Your task to perform on an android device: Open Wikipedia Image 0: 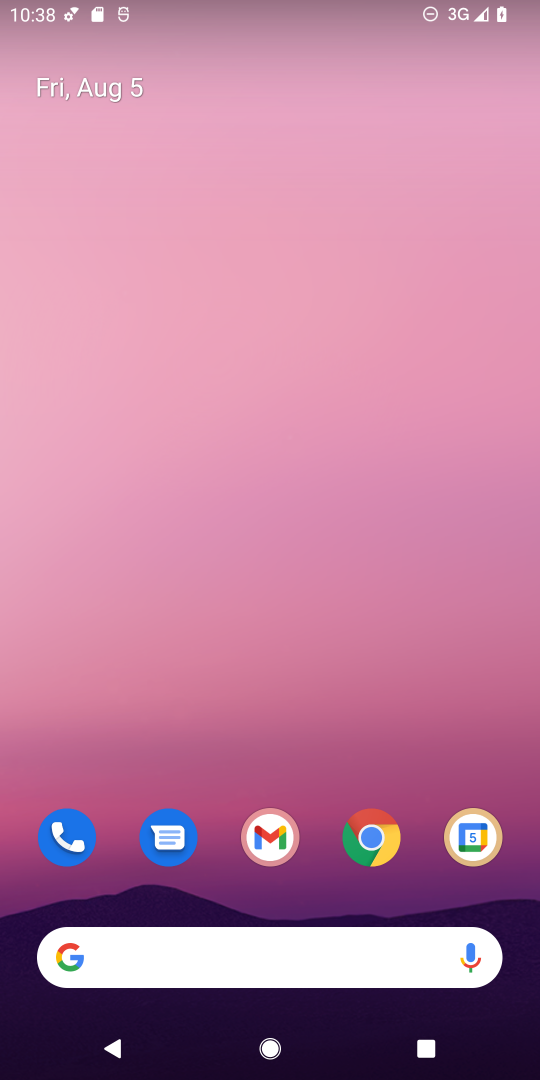
Step 0: click (376, 841)
Your task to perform on an android device: Open Wikipedia Image 1: 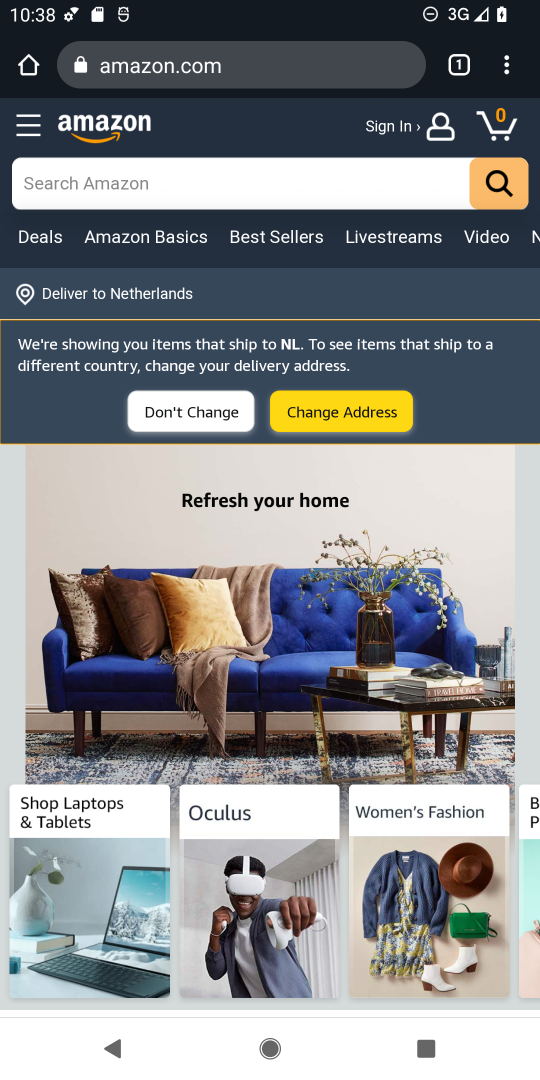
Step 1: click (505, 67)
Your task to perform on an android device: Open Wikipedia Image 2: 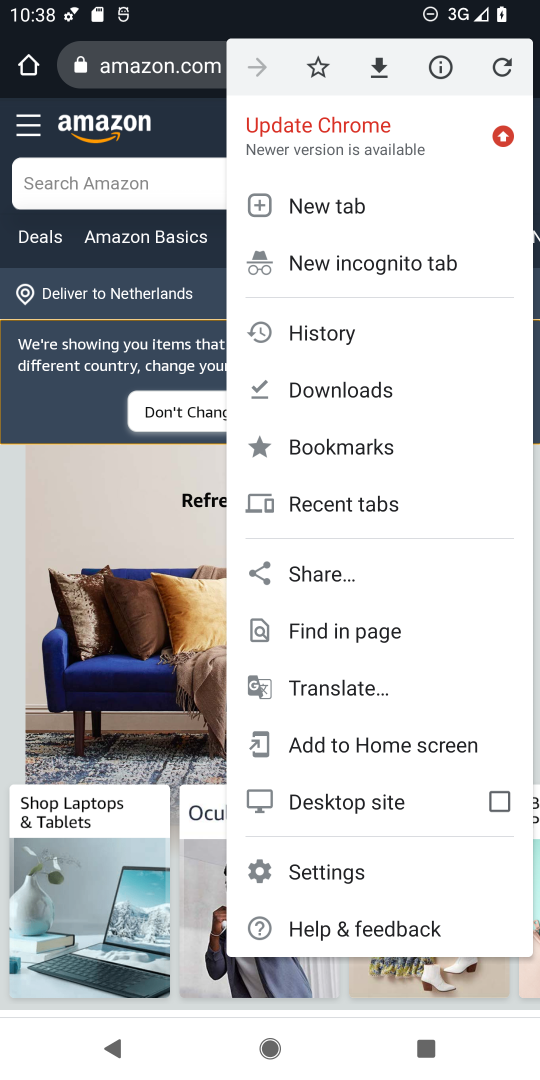
Step 2: click (350, 193)
Your task to perform on an android device: Open Wikipedia Image 3: 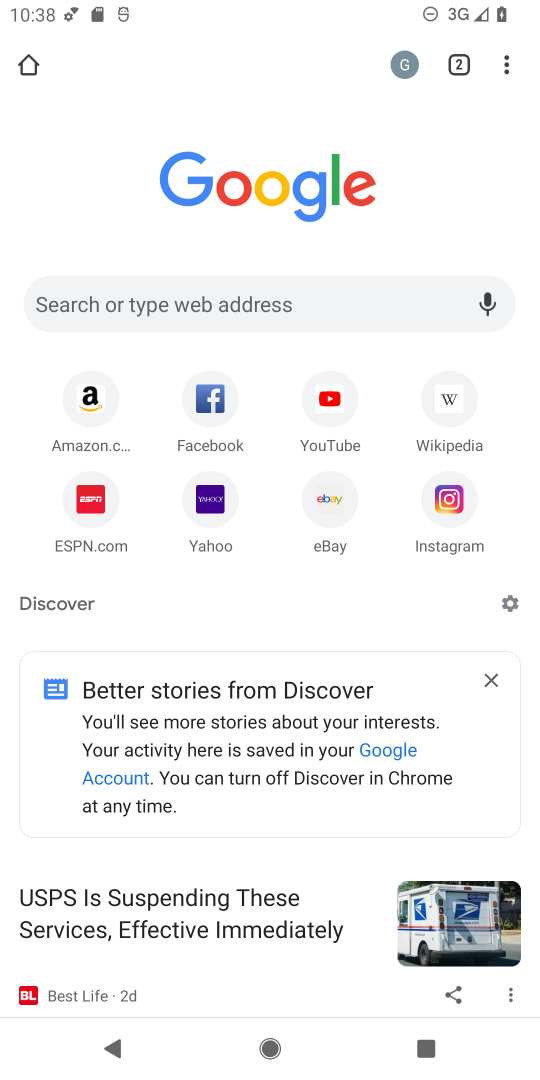
Step 3: click (440, 390)
Your task to perform on an android device: Open Wikipedia Image 4: 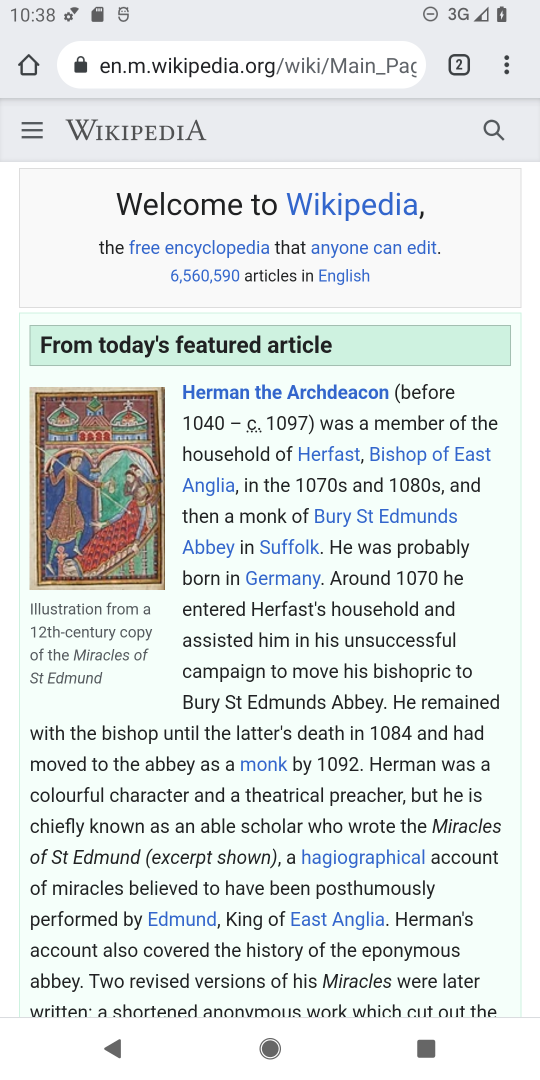
Step 4: task complete